Your task to perform on an android device: toggle improve location accuracy Image 0: 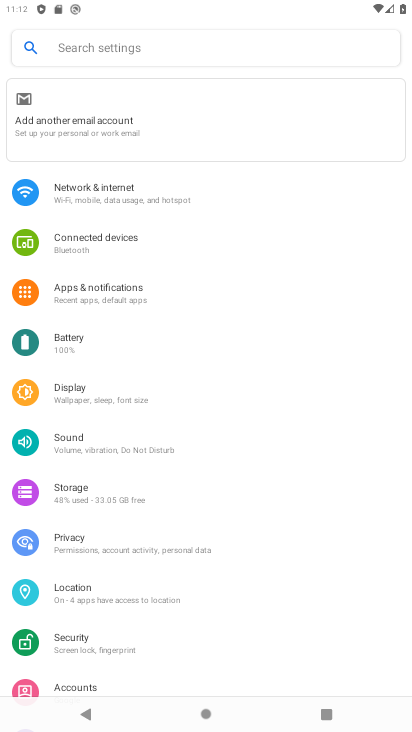
Step 0: press home button
Your task to perform on an android device: toggle improve location accuracy Image 1: 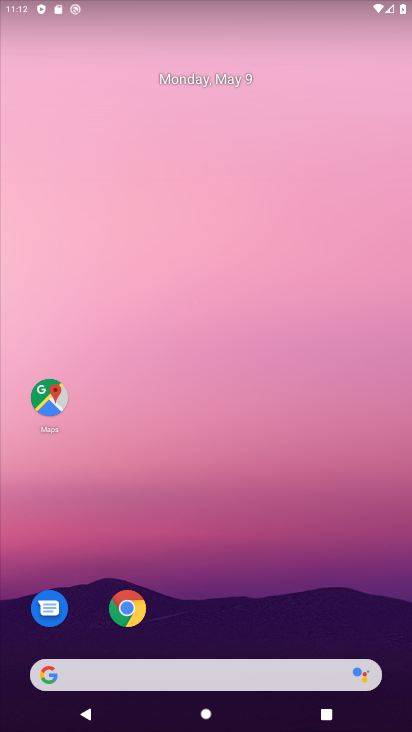
Step 1: drag from (12, 616) to (306, 99)
Your task to perform on an android device: toggle improve location accuracy Image 2: 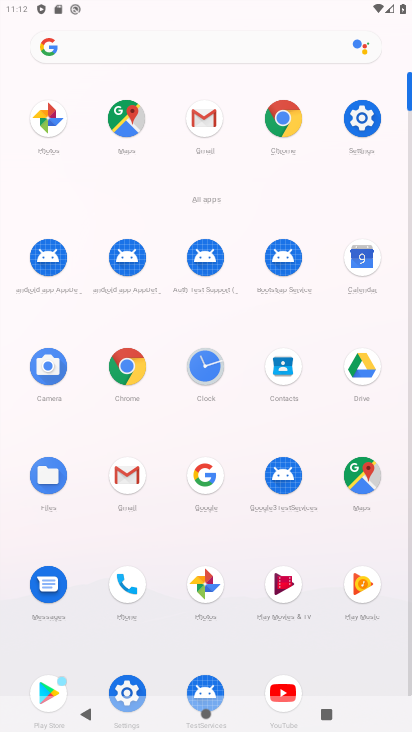
Step 2: click (364, 122)
Your task to perform on an android device: toggle improve location accuracy Image 3: 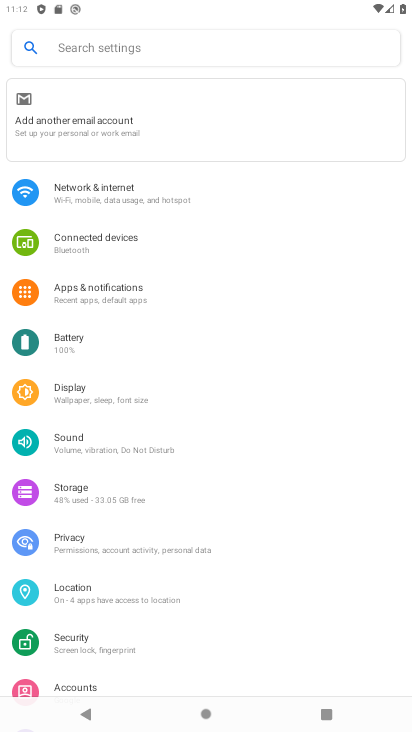
Step 3: click (123, 594)
Your task to perform on an android device: toggle improve location accuracy Image 4: 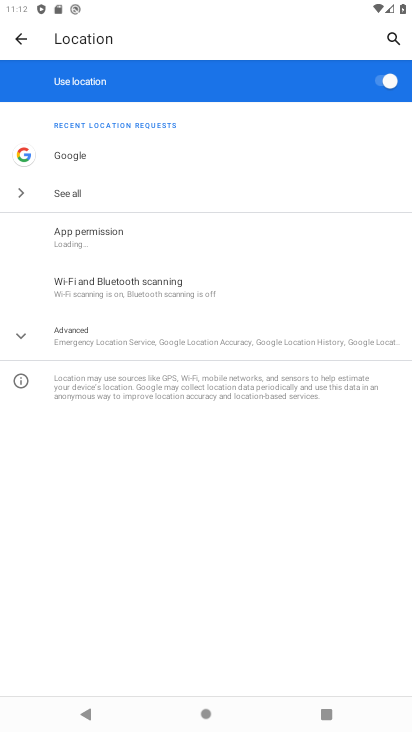
Step 4: click (161, 333)
Your task to perform on an android device: toggle improve location accuracy Image 5: 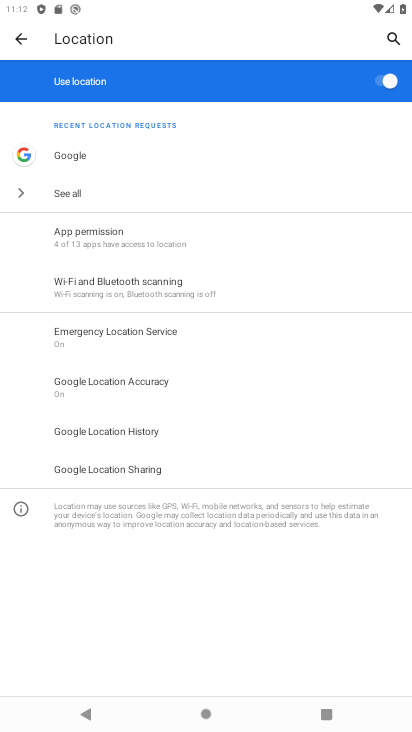
Step 5: click (148, 384)
Your task to perform on an android device: toggle improve location accuracy Image 6: 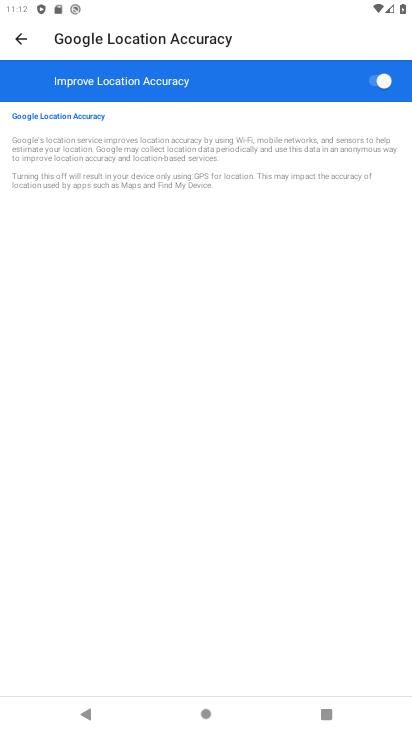
Step 6: click (387, 71)
Your task to perform on an android device: toggle improve location accuracy Image 7: 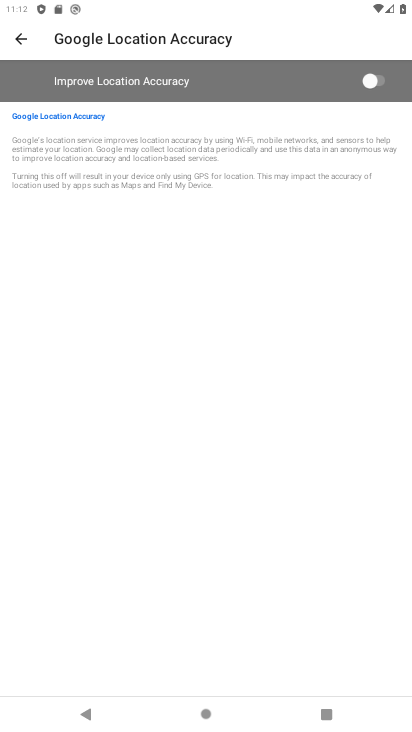
Step 7: task complete